Your task to perform on an android device: add a contact in the contacts app Image 0: 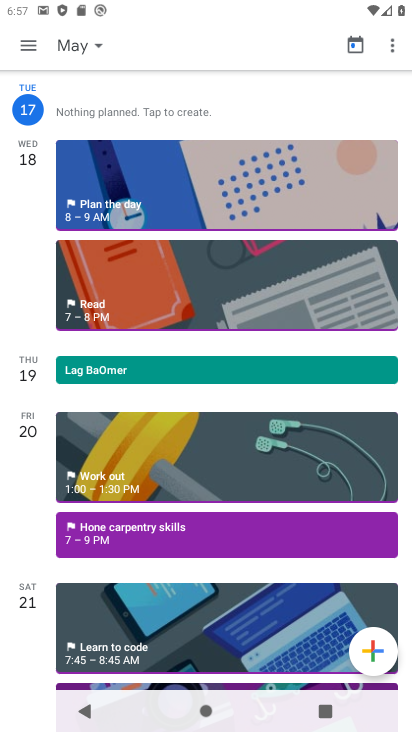
Step 0: press back button
Your task to perform on an android device: add a contact in the contacts app Image 1: 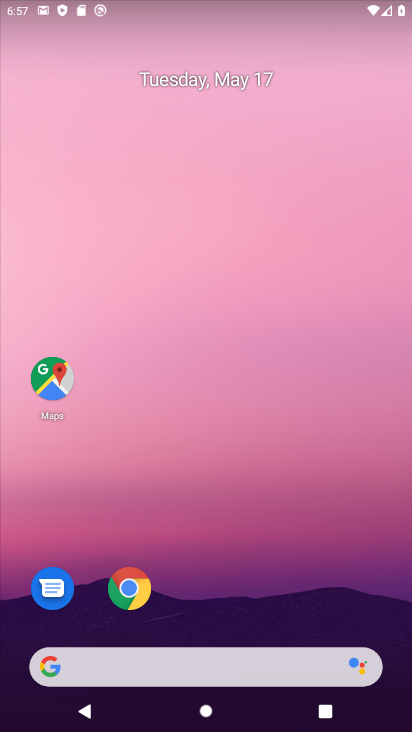
Step 1: drag from (296, 593) to (203, 149)
Your task to perform on an android device: add a contact in the contacts app Image 2: 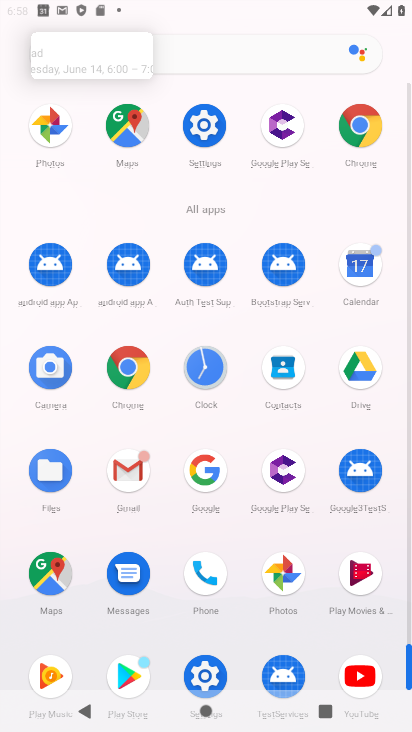
Step 2: click (287, 366)
Your task to perform on an android device: add a contact in the contacts app Image 3: 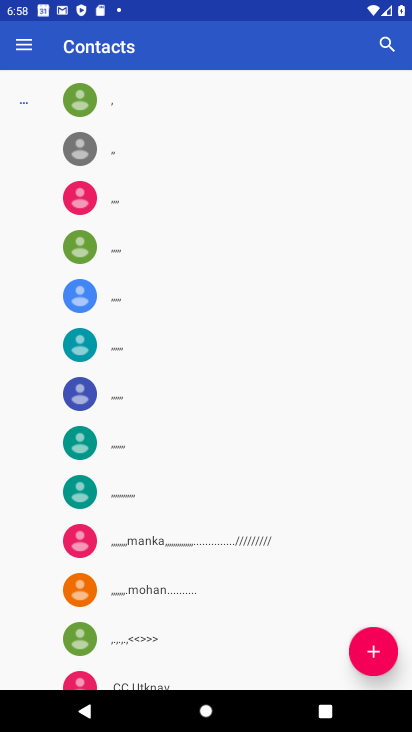
Step 3: click (372, 655)
Your task to perform on an android device: add a contact in the contacts app Image 4: 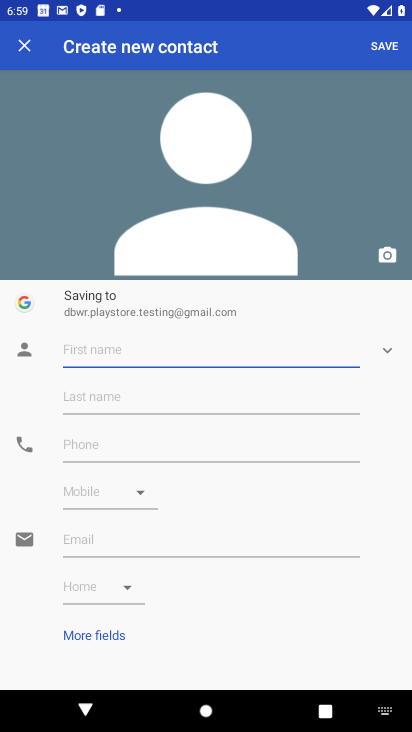
Step 4: type "Arundhati"
Your task to perform on an android device: add a contact in the contacts app Image 5: 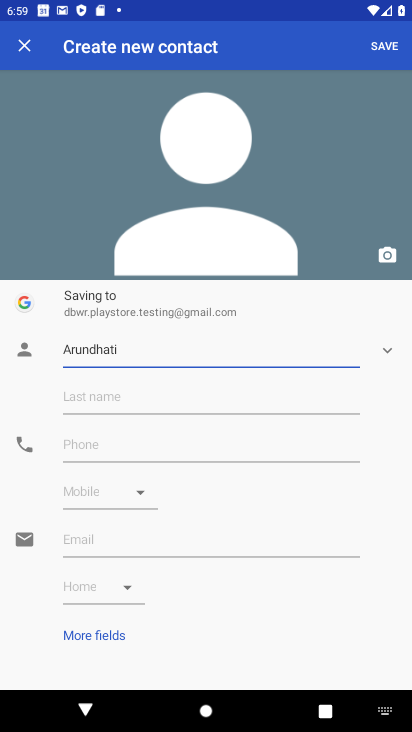
Step 5: click (215, 387)
Your task to perform on an android device: add a contact in the contacts app Image 6: 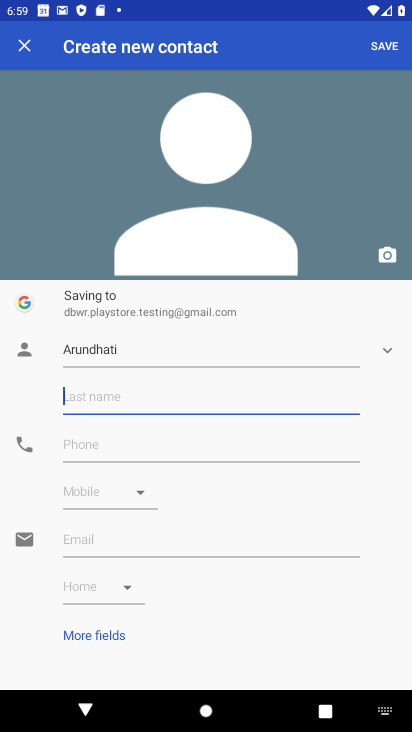
Step 6: type "Kariyappa"
Your task to perform on an android device: add a contact in the contacts app Image 7: 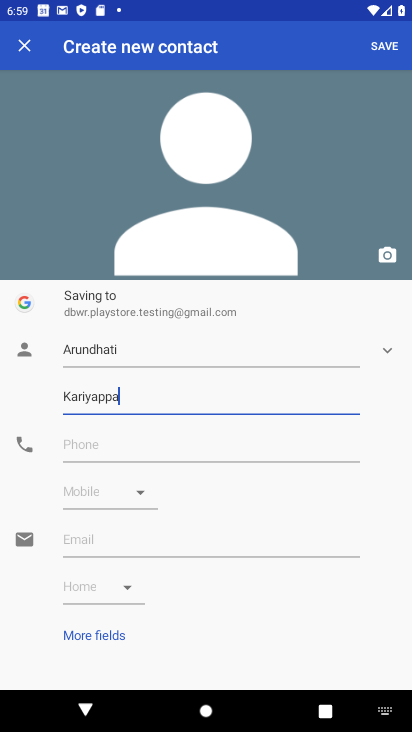
Step 7: type ""
Your task to perform on an android device: add a contact in the contacts app Image 8: 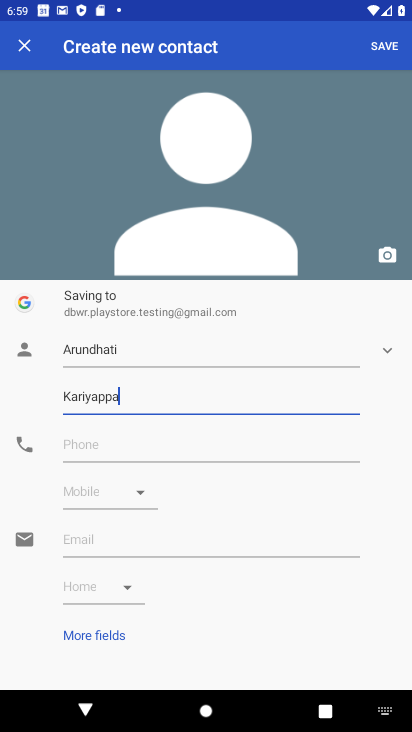
Step 8: click (128, 430)
Your task to perform on an android device: add a contact in the contacts app Image 9: 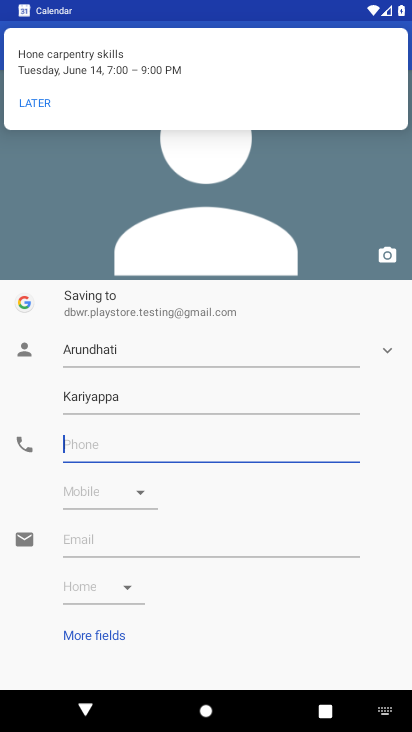
Step 9: type "09876543212"
Your task to perform on an android device: add a contact in the contacts app Image 10: 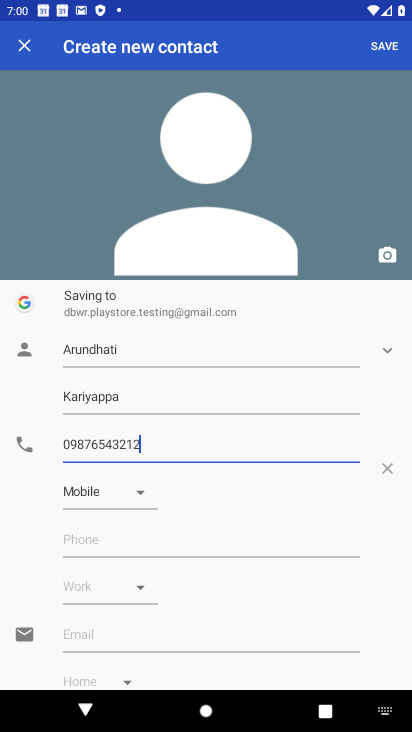
Step 10: click (378, 51)
Your task to perform on an android device: add a contact in the contacts app Image 11: 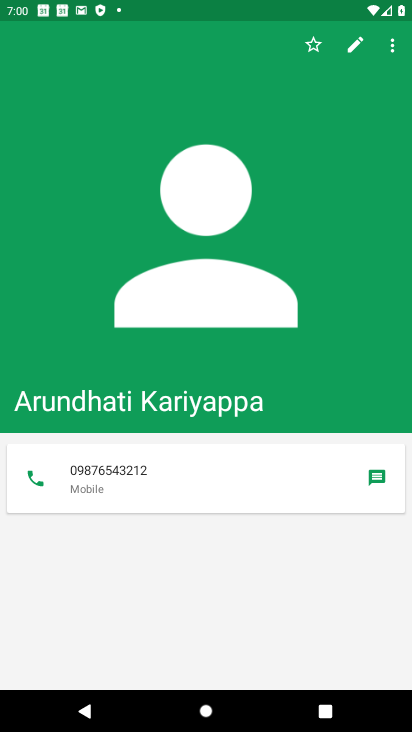
Step 11: task complete